Your task to perform on an android device: turn on sleep mode Image 0: 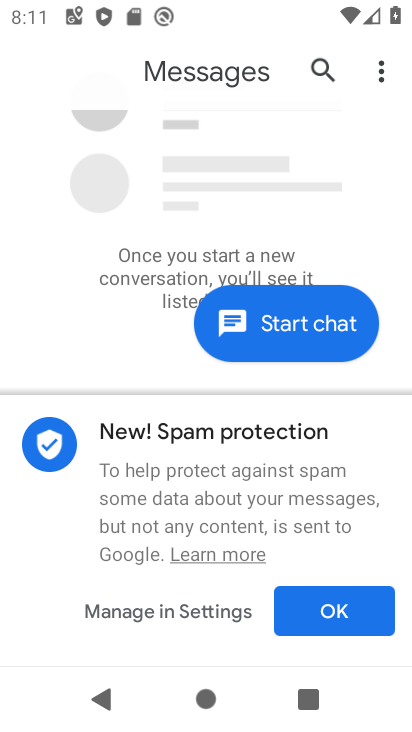
Step 0: press home button
Your task to perform on an android device: turn on sleep mode Image 1: 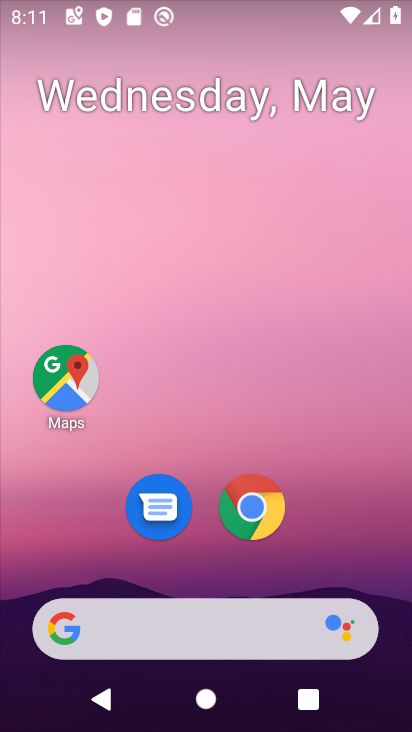
Step 1: drag from (304, 578) to (333, 246)
Your task to perform on an android device: turn on sleep mode Image 2: 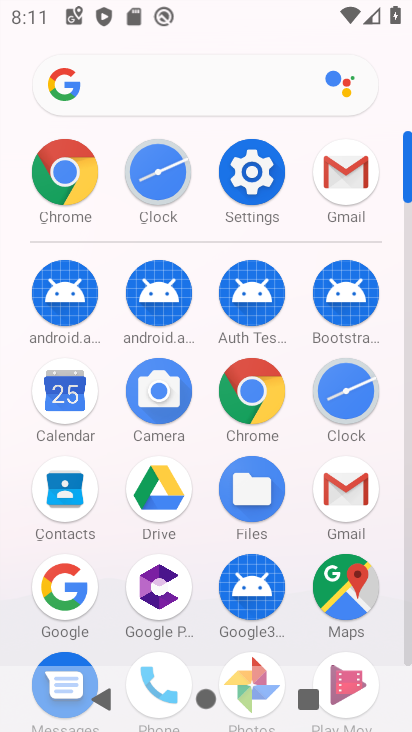
Step 2: click (251, 174)
Your task to perform on an android device: turn on sleep mode Image 3: 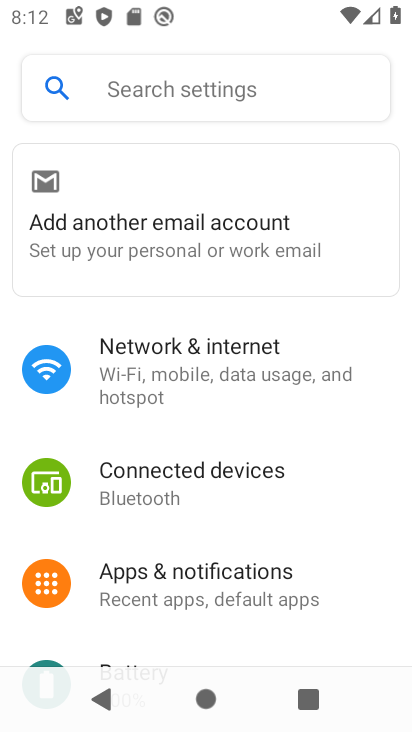
Step 3: task complete